Your task to perform on an android device: Go to Android settings Image 0: 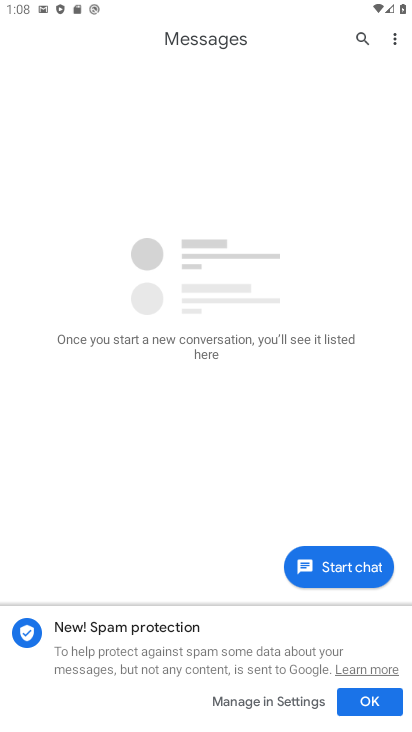
Step 0: press home button
Your task to perform on an android device: Go to Android settings Image 1: 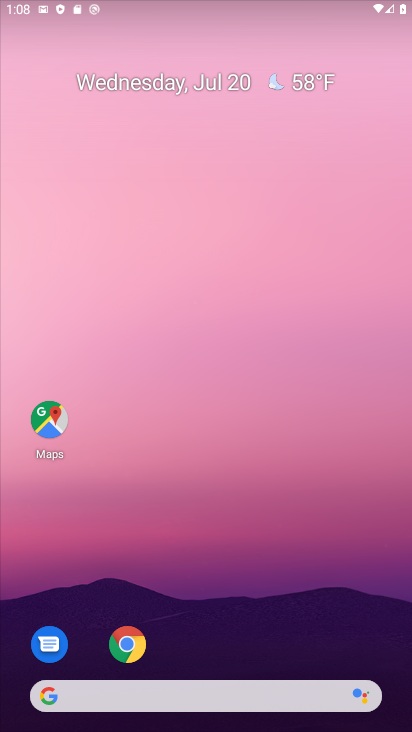
Step 1: drag from (211, 651) to (238, 55)
Your task to perform on an android device: Go to Android settings Image 2: 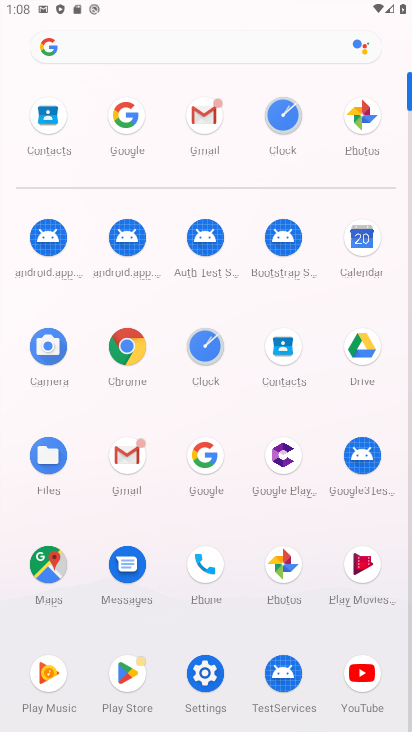
Step 2: click (205, 682)
Your task to perform on an android device: Go to Android settings Image 3: 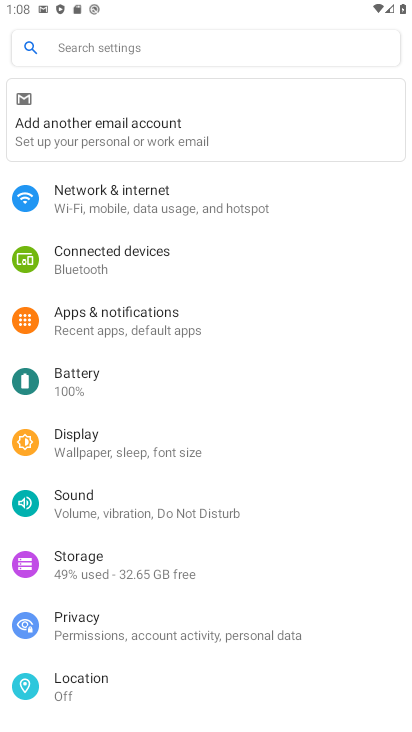
Step 3: task complete